Your task to perform on an android device: Open ESPN.com Image 0: 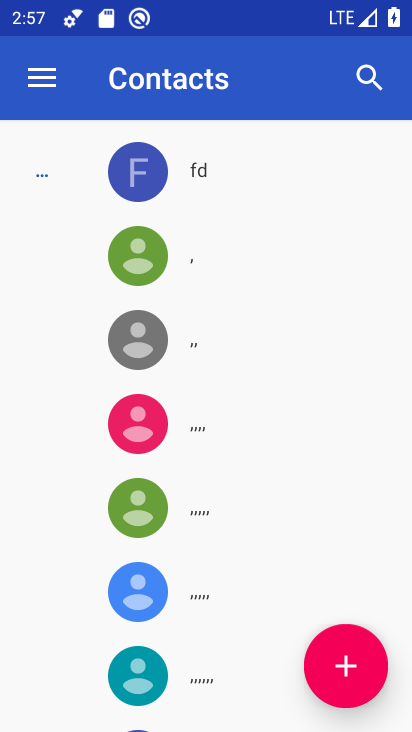
Step 0: press home button
Your task to perform on an android device: Open ESPN.com Image 1: 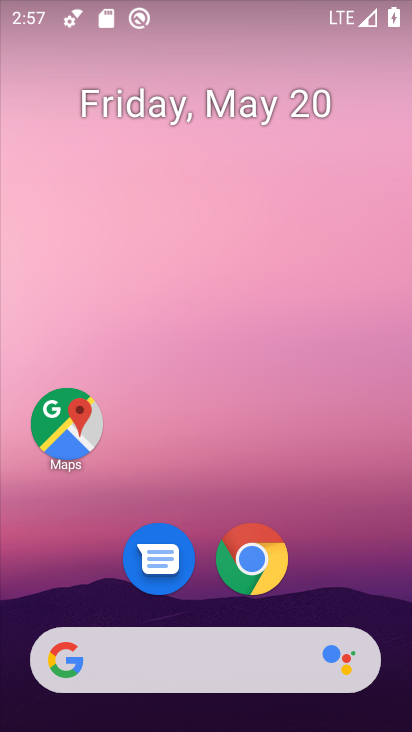
Step 1: click (232, 670)
Your task to perform on an android device: Open ESPN.com Image 2: 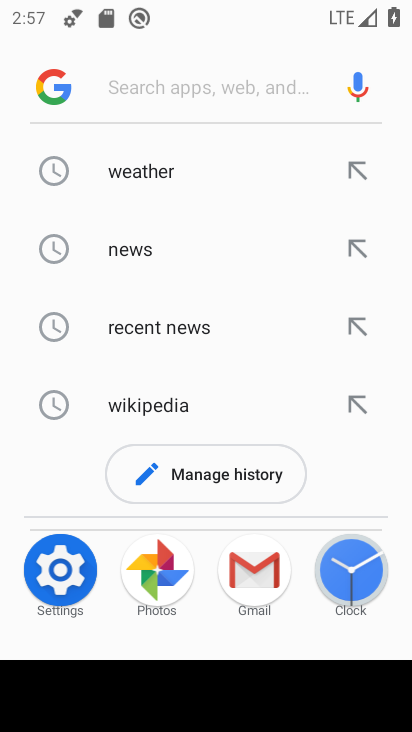
Step 2: type "espn.com"
Your task to perform on an android device: Open ESPN.com Image 3: 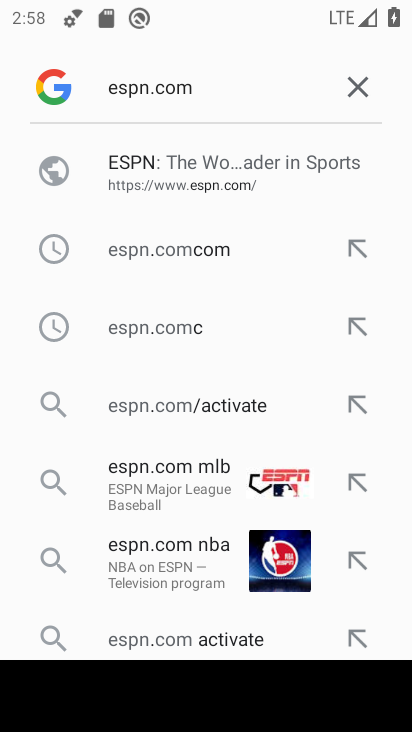
Step 3: click (116, 174)
Your task to perform on an android device: Open ESPN.com Image 4: 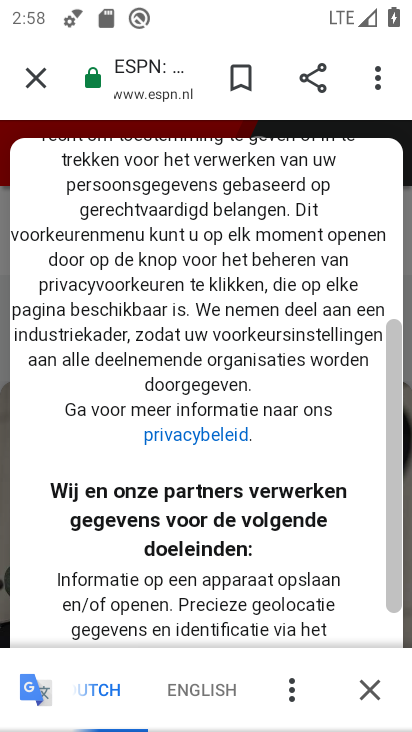
Step 4: task complete